Your task to perform on an android device: Show me productivity apps on the Play Store Image 0: 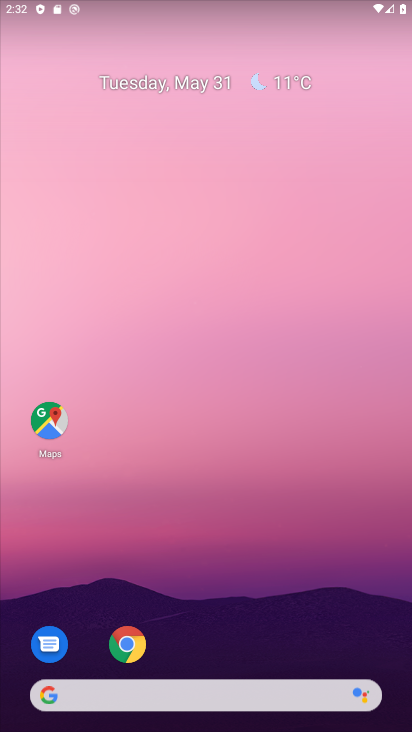
Step 0: drag from (215, 634) to (219, 74)
Your task to perform on an android device: Show me productivity apps on the Play Store Image 1: 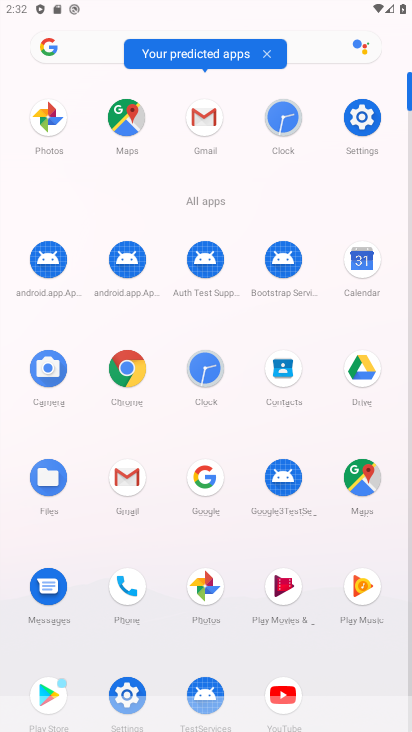
Step 1: click (43, 684)
Your task to perform on an android device: Show me productivity apps on the Play Store Image 2: 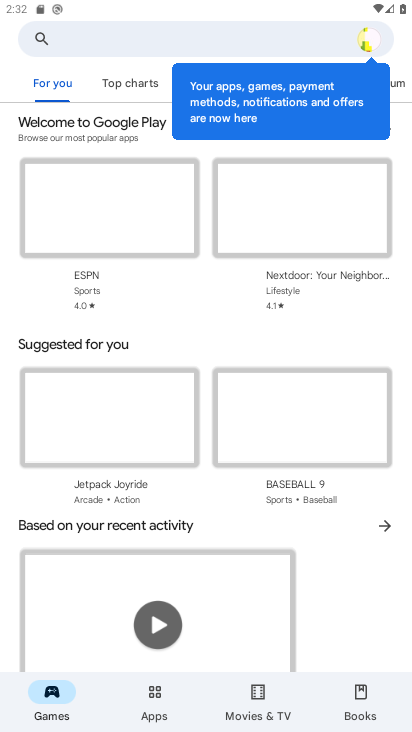
Step 2: click (145, 701)
Your task to perform on an android device: Show me productivity apps on the Play Store Image 3: 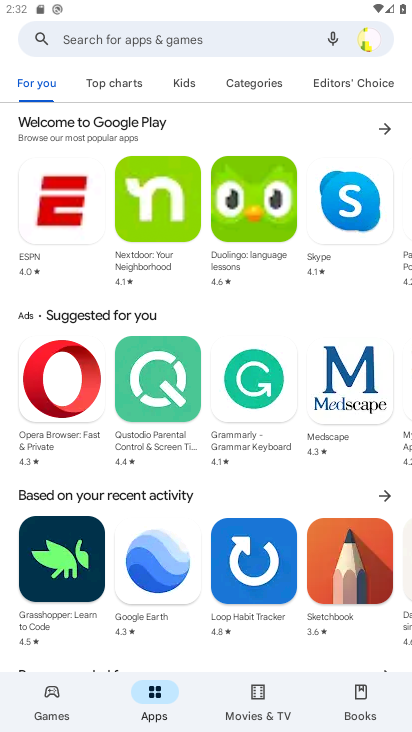
Step 3: click (274, 82)
Your task to perform on an android device: Show me productivity apps on the Play Store Image 4: 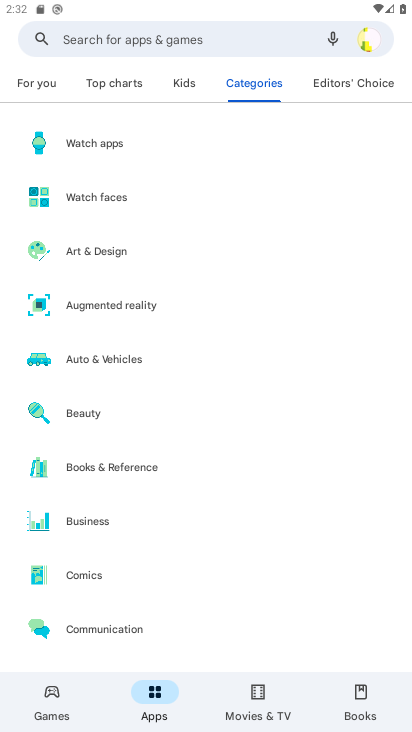
Step 4: drag from (254, 588) to (278, 153)
Your task to perform on an android device: Show me productivity apps on the Play Store Image 5: 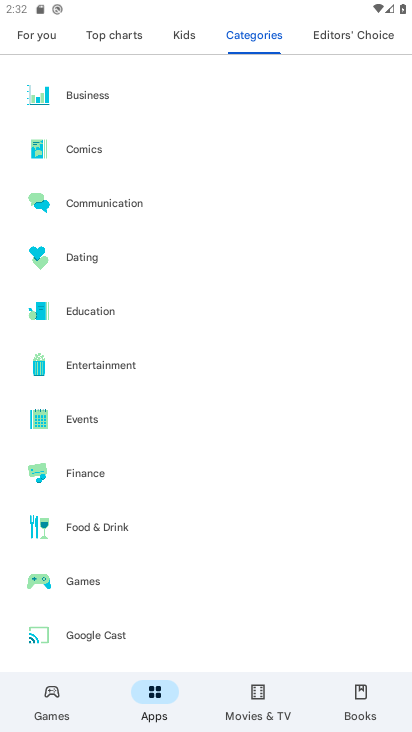
Step 5: drag from (222, 565) to (225, 179)
Your task to perform on an android device: Show me productivity apps on the Play Store Image 6: 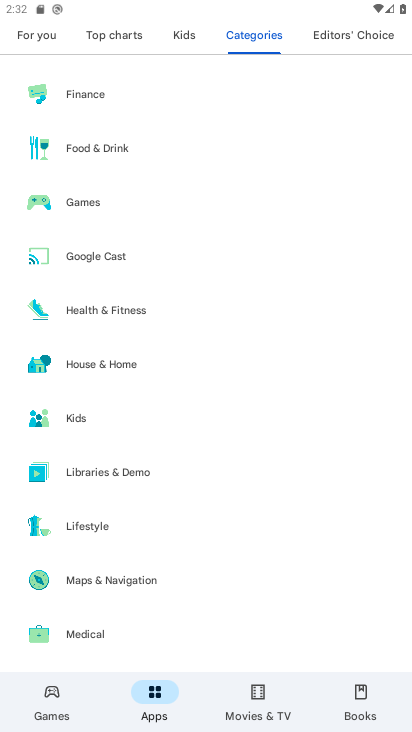
Step 6: drag from (219, 603) to (253, 174)
Your task to perform on an android device: Show me productivity apps on the Play Store Image 7: 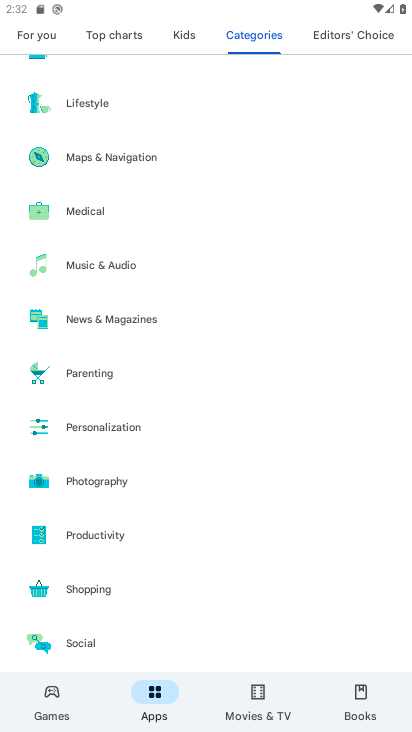
Step 7: click (112, 536)
Your task to perform on an android device: Show me productivity apps on the Play Store Image 8: 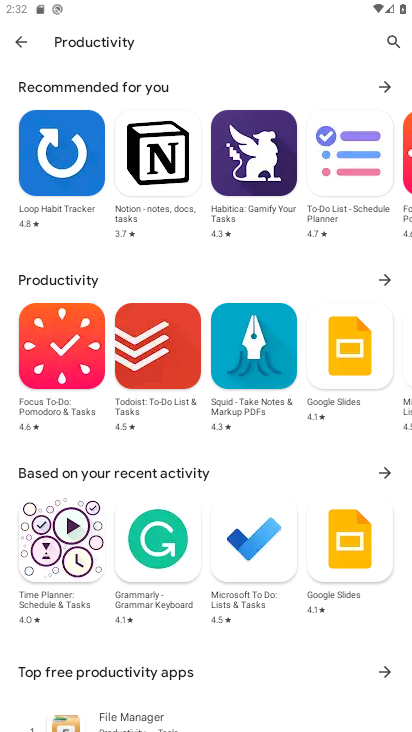
Step 8: task complete